Your task to perform on an android device: turn on improve location accuracy Image 0: 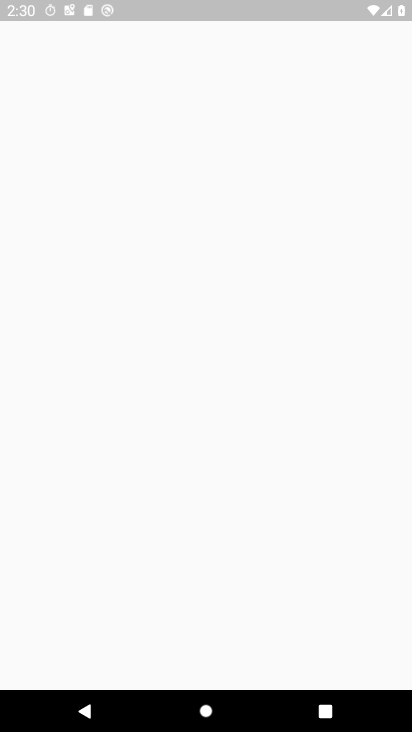
Step 0: press home button
Your task to perform on an android device: turn on improve location accuracy Image 1: 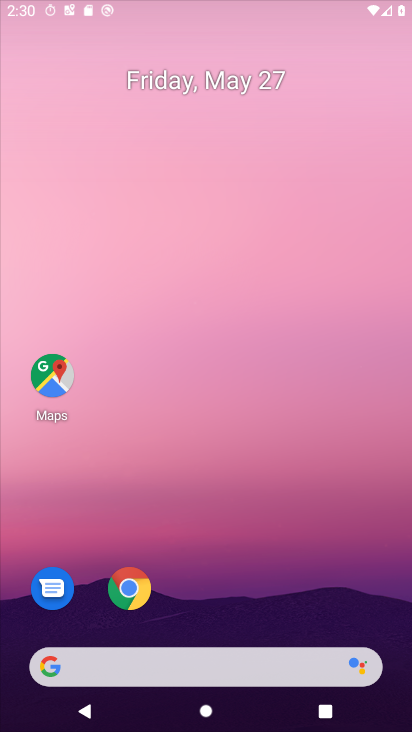
Step 1: drag from (267, 629) to (269, 13)
Your task to perform on an android device: turn on improve location accuracy Image 2: 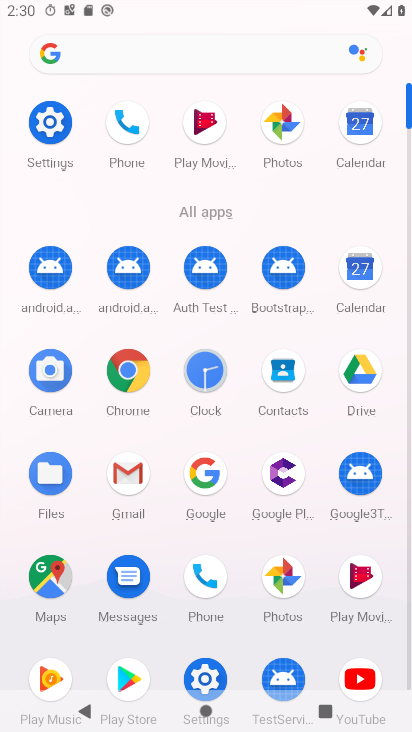
Step 2: click (55, 128)
Your task to perform on an android device: turn on improve location accuracy Image 3: 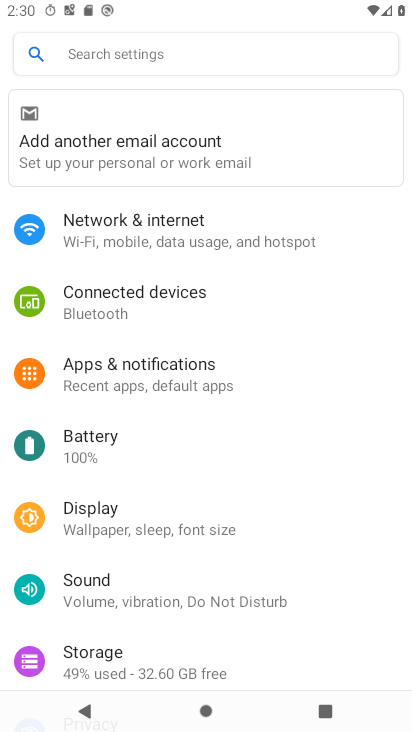
Step 3: drag from (124, 590) to (146, 293)
Your task to perform on an android device: turn on improve location accuracy Image 4: 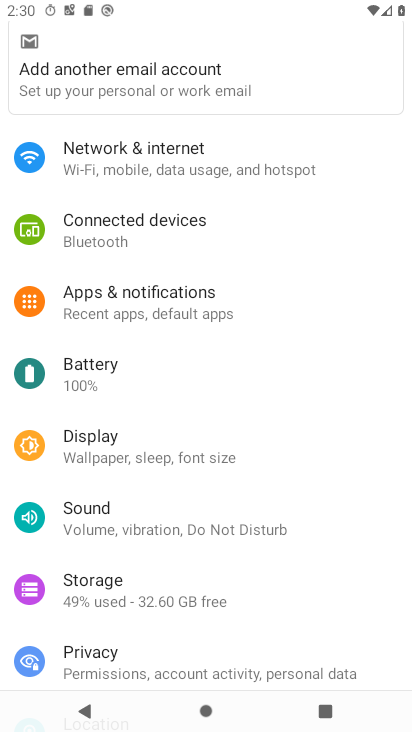
Step 4: drag from (118, 656) to (120, 277)
Your task to perform on an android device: turn on improve location accuracy Image 5: 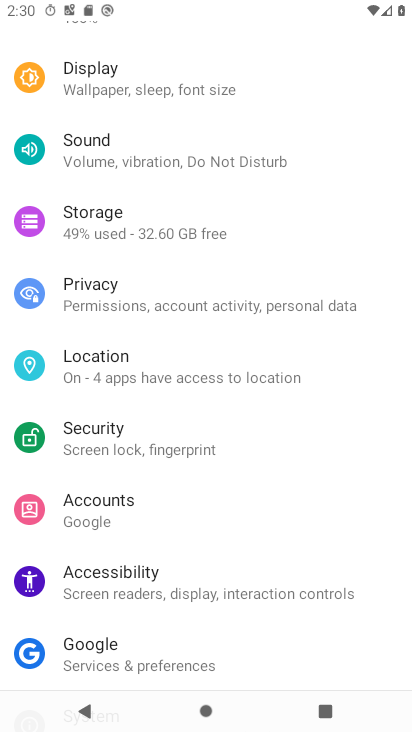
Step 5: click (93, 370)
Your task to perform on an android device: turn on improve location accuracy Image 6: 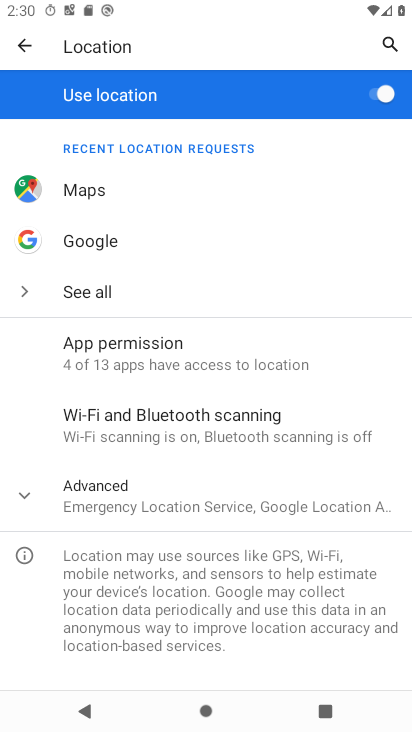
Step 6: click (223, 506)
Your task to perform on an android device: turn on improve location accuracy Image 7: 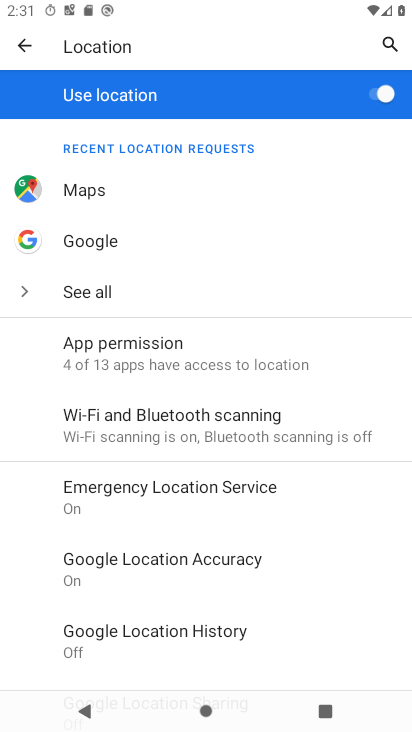
Step 7: click (188, 575)
Your task to perform on an android device: turn on improve location accuracy Image 8: 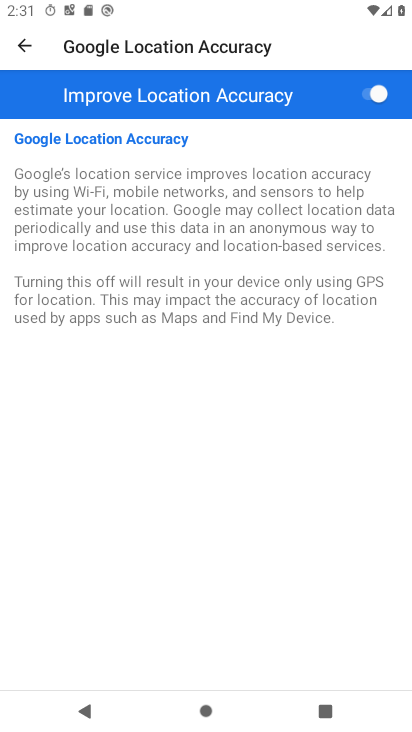
Step 8: task complete